Your task to perform on an android device: What's the weather going to be this weekend? Image 0: 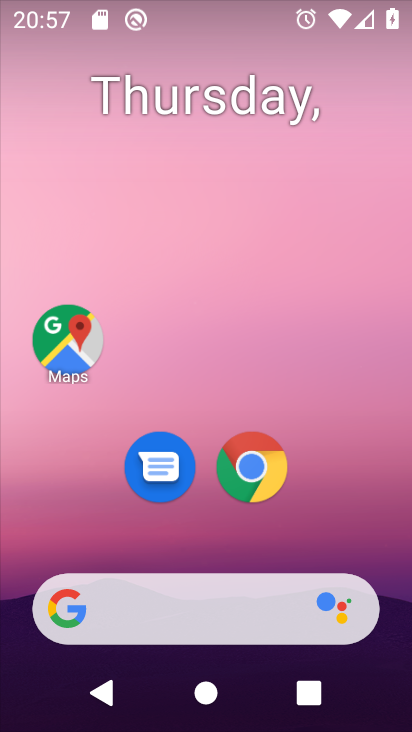
Step 0: drag from (281, 519) to (366, 60)
Your task to perform on an android device: What's the weather going to be this weekend? Image 1: 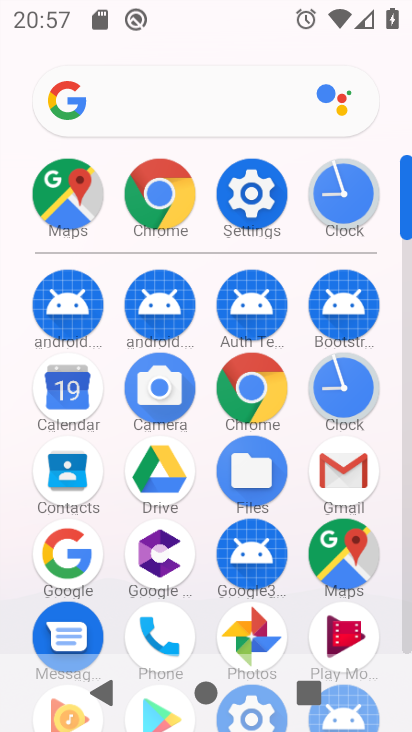
Step 1: drag from (195, 578) to (208, 294)
Your task to perform on an android device: What's the weather going to be this weekend? Image 2: 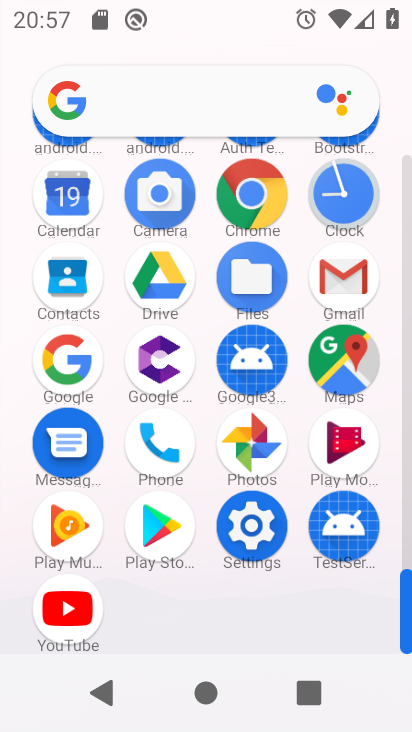
Step 2: click (56, 201)
Your task to perform on an android device: What's the weather going to be this weekend? Image 3: 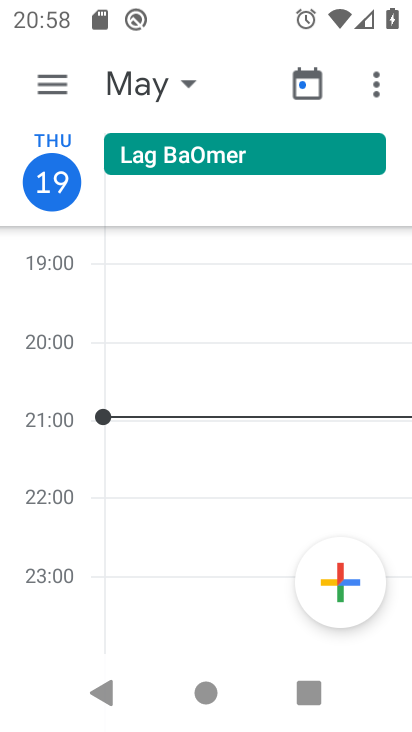
Step 3: click (57, 74)
Your task to perform on an android device: What's the weather going to be this weekend? Image 4: 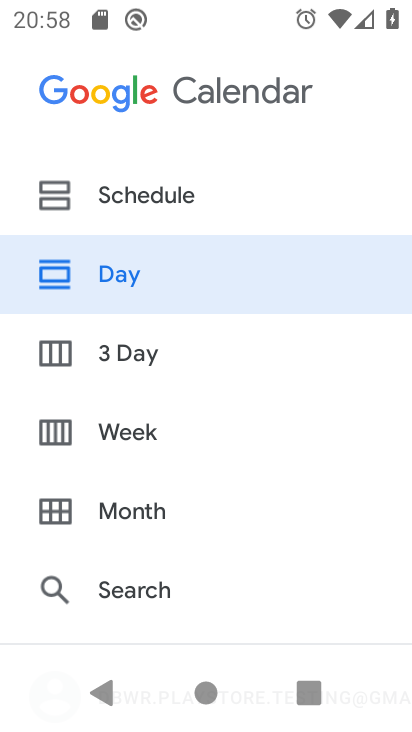
Step 4: click (110, 445)
Your task to perform on an android device: What's the weather going to be this weekend? Image 5: 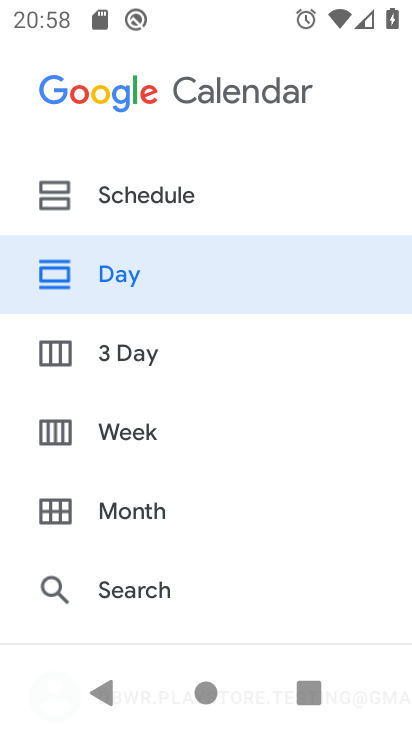
Step 5: press home button
Your task to perform on an android device: What's the weather going to be this weekend? Image 6: 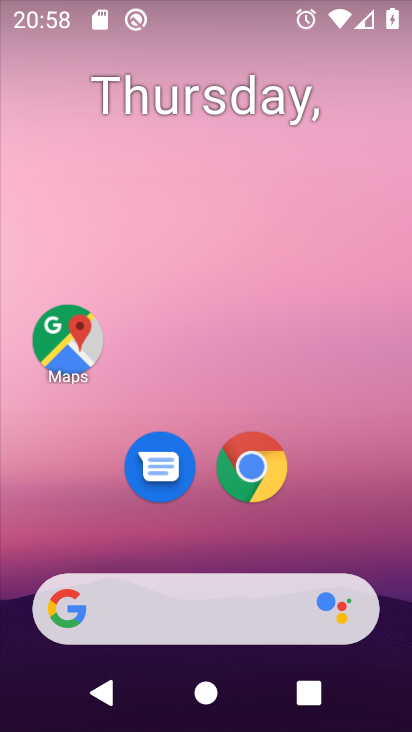
Step 6: click (281, 478)
Your task to perform on an android device: What's the weather going to be this weekend? Image 7: 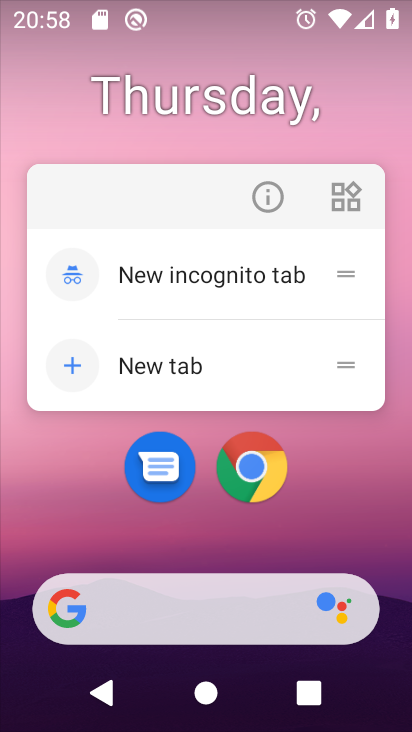
Step 7: click (260, 464)
Your task to perform on an android device: What's the weather going to be this weekend? Image 8: 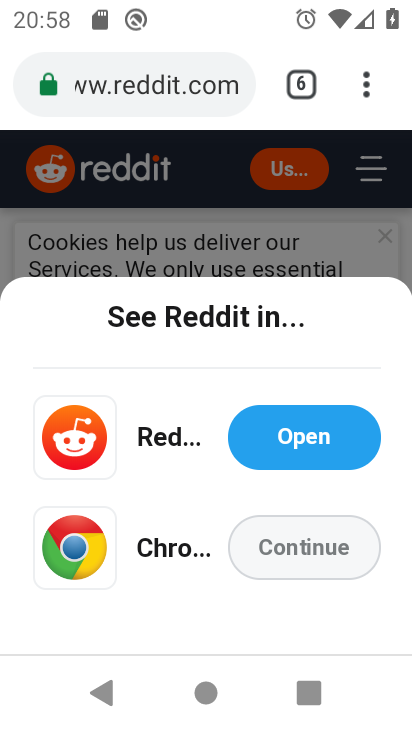
Step 8: click (364, 71)
Your task to perform on an android device: What's the weather going to be this weekend? Image 9: 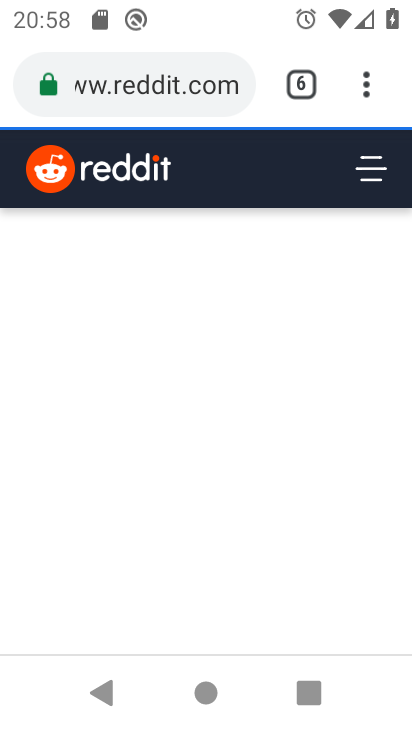
Step 9: click (362, 95)
Your task to perform on an android device: What's the weather going to be this weekend? Image 10: 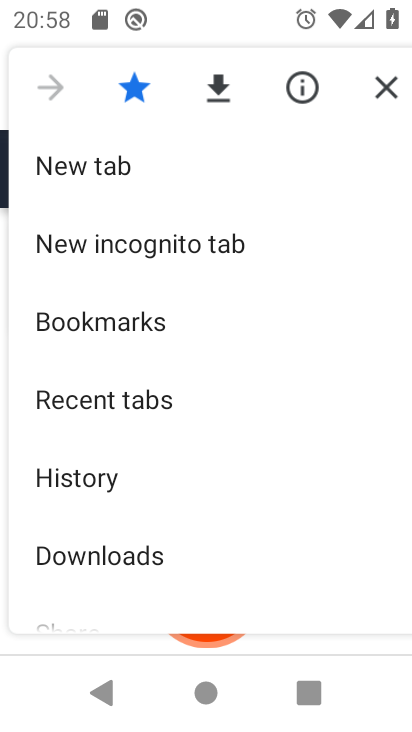
Step 10: click (83, 166)
Your task to perform on an android device: What's the weather going to be this weekend? Image 11: 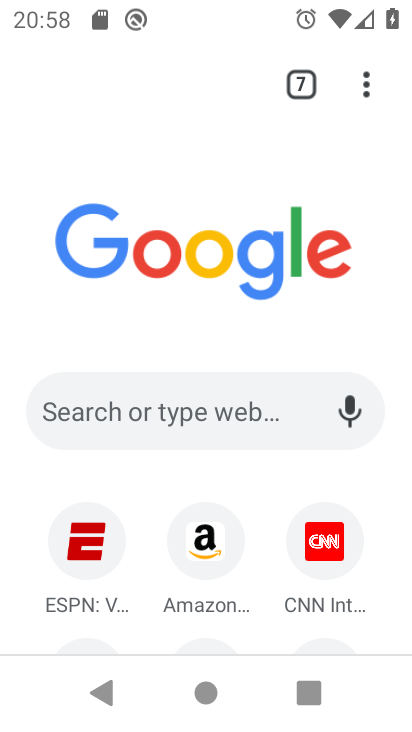
Step 11: click (103, 412)
Your task to perform on an android device: What's the weather going to be this weekend? Image 12: 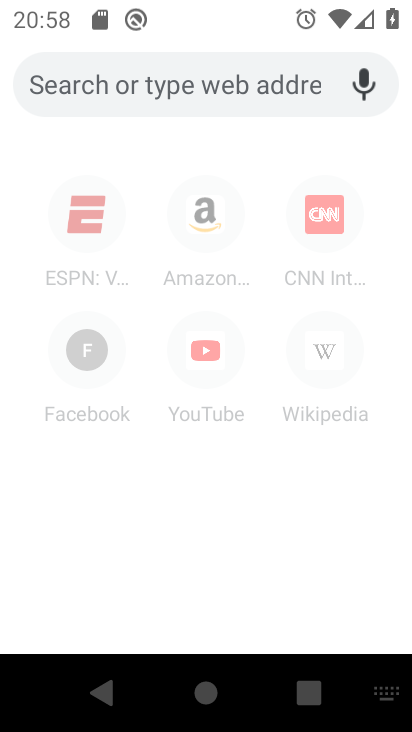
Step 12: type "What's the weather going to be this weekend?"
Your task to perform on an android device: What's the weather going to be this weekend? Image 13: 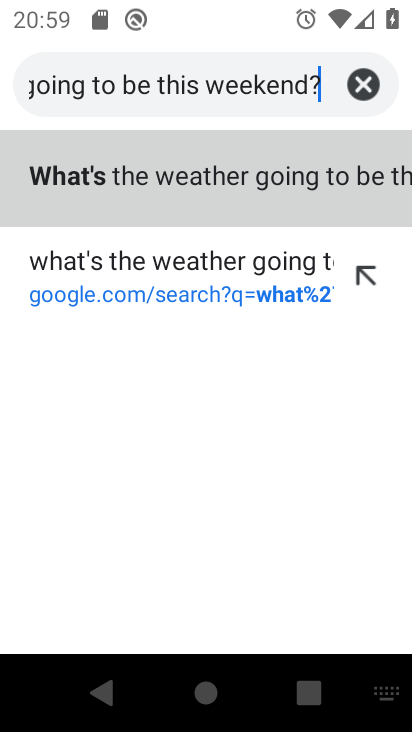
Step 13: click (254, 201)
Your task to perform on an android device: What's the weather going to be this weekend? Image 14: 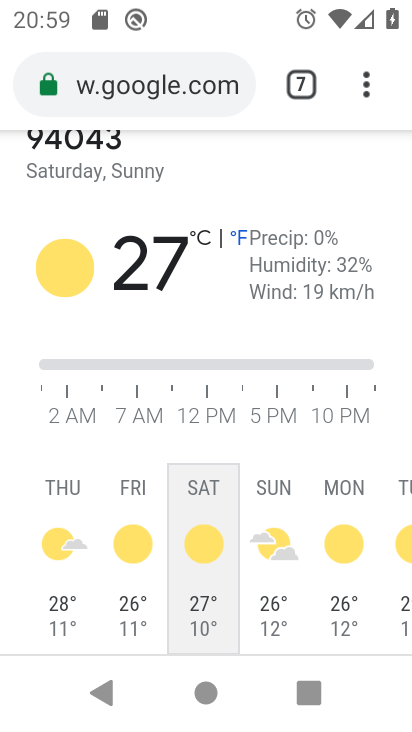
Step 14: task complete